Your task to perform on an android device: set the stopwatch Image 0: 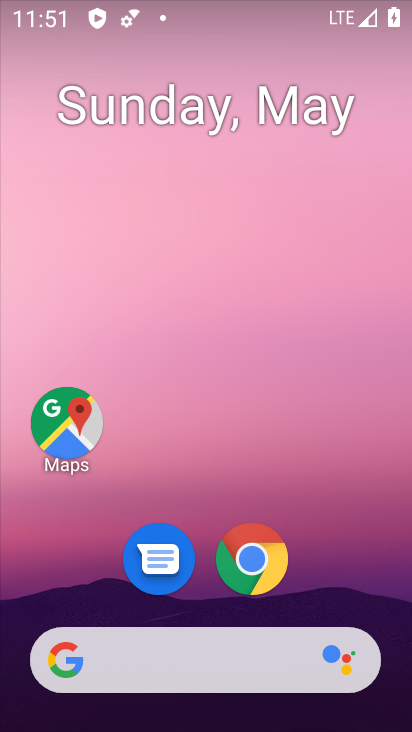
Step 0: drag from (286, 709) to (219, 18)
Your task to perform on an android device: set the stopwatch Image 1: 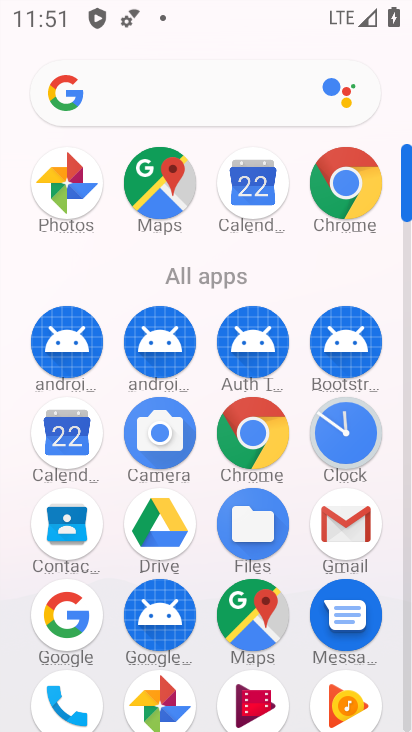
Step 1: click (357, 439)
Your task to perform on an android device: set the stopwatch Image 2: 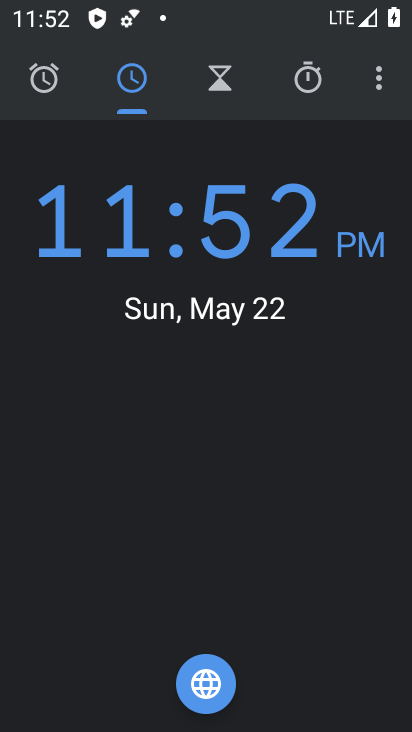
Step 2: click (14, 76)
Your task to perform on an android device: set the stopwatch Image 3: 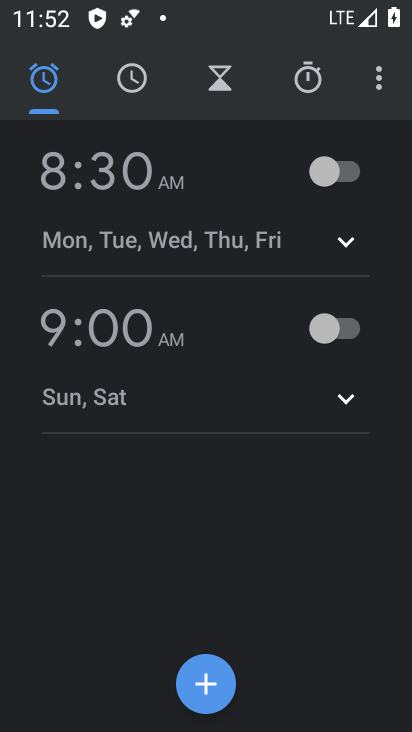
Step 3: click (320, 93)
Your task to perform on an android device: set the stopwatch Image 4: 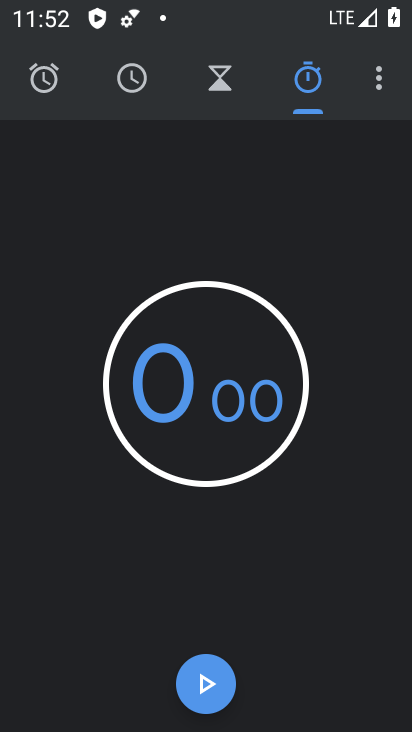
Step 4: click (216, 675)
Your task to perform on an android device: set the stopwatch Image 5: 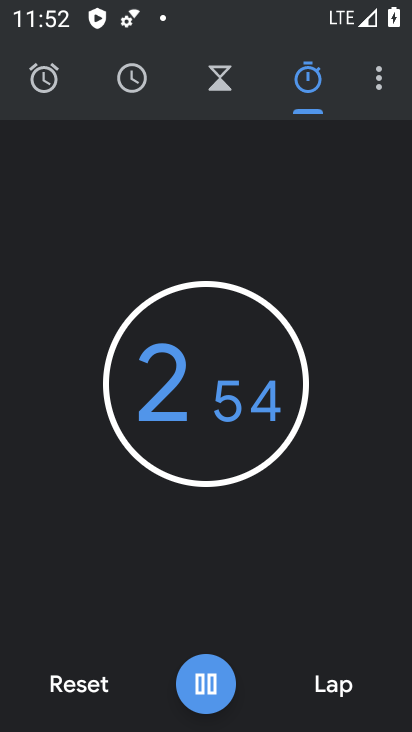
Step 5: task complete